Your task to perform on an android device: Do I have any events tomorrow? Image 0: 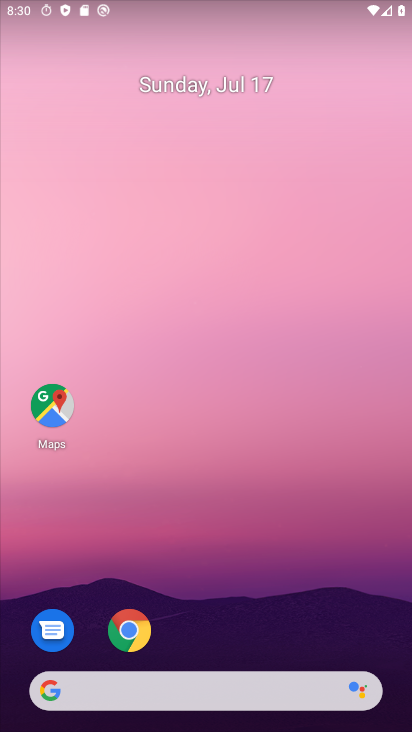
Step 0: drag from (188, 349) to (237, 239)
Your task to perform on an android device: Do I have any events tomorrow? Image 1: 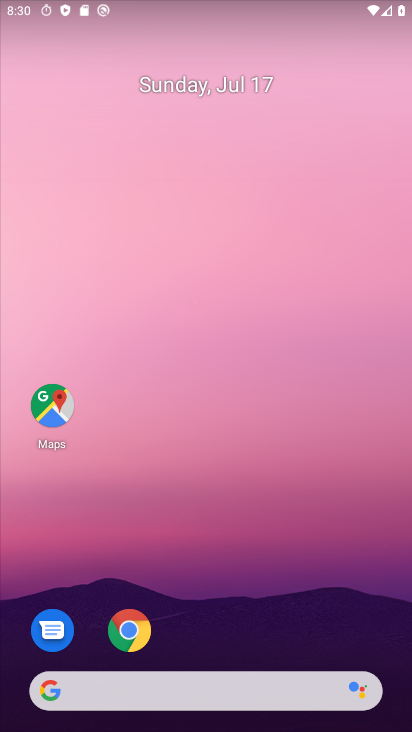
Step 1: drag from (24, 636) to (261, 135)
Your task to perform on an android device: Do I have any events tomorrow? Image 2: 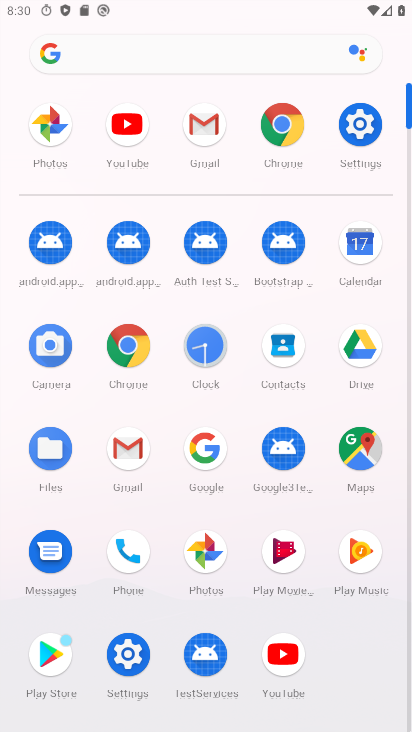
Step 2: click (355, 253)
Your task to perform on an android device: Do I have any events tomorrow? Image 3: 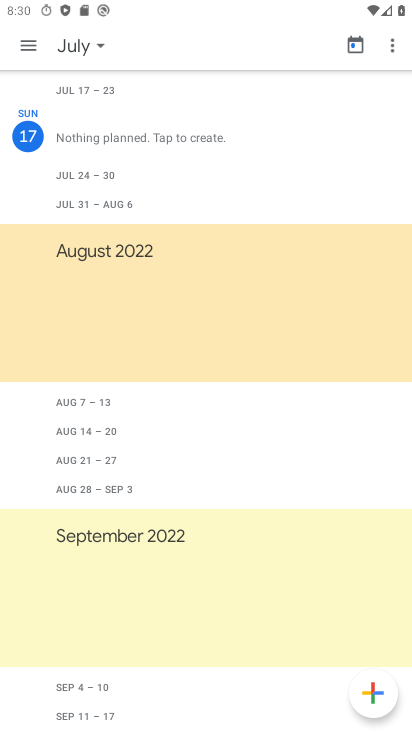
Step 3: click (98, 47)
Your task to perform on an android device: Do I have any events tomorrow? Image 4: 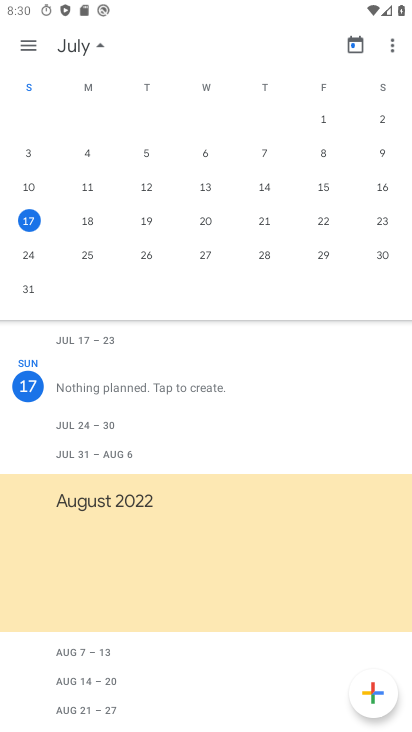
Step 4: task complete